Your task to perform on an android device: find which apps use the phone's location Image 0: 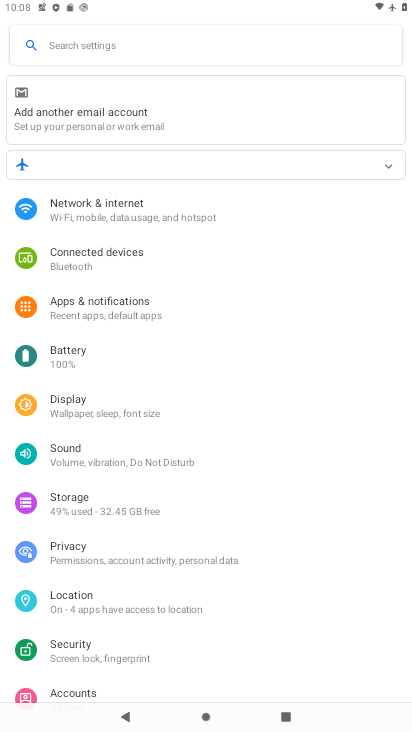
Step 0: click (125, 603)
Your task to perform on an android device: find which apps use the phone's location Image 1: 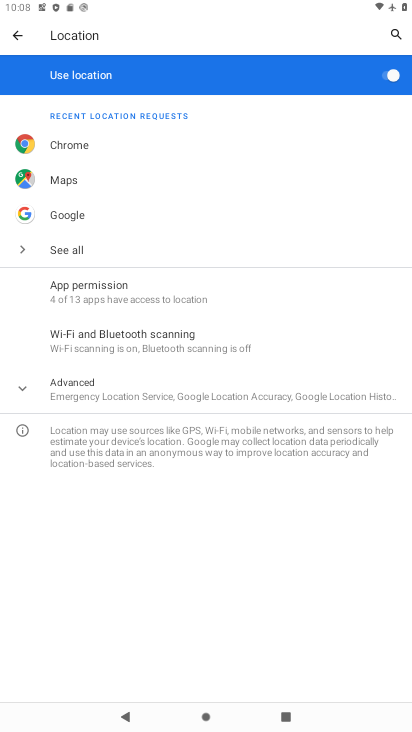
Step 1: task complete